Your task to perform on an android device: add a contact Image 0: 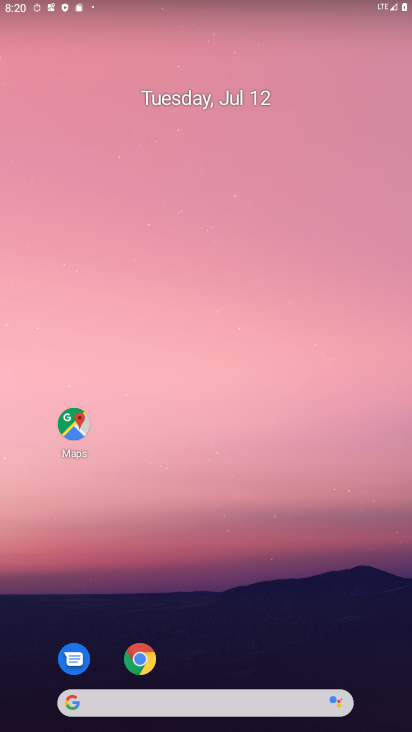
Step 0: drag from (351, 649) to (320, 81)
Your task to perform on an android device: add a contact Image 1: 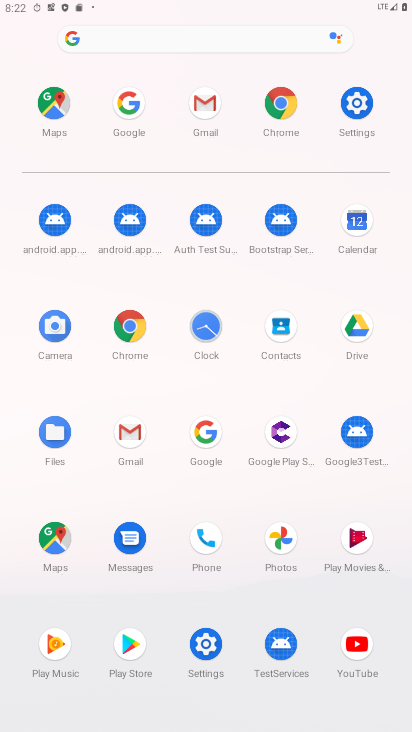
Step 1: click (287, 324)
Your task to perform on an android device: add a contact Image 2: 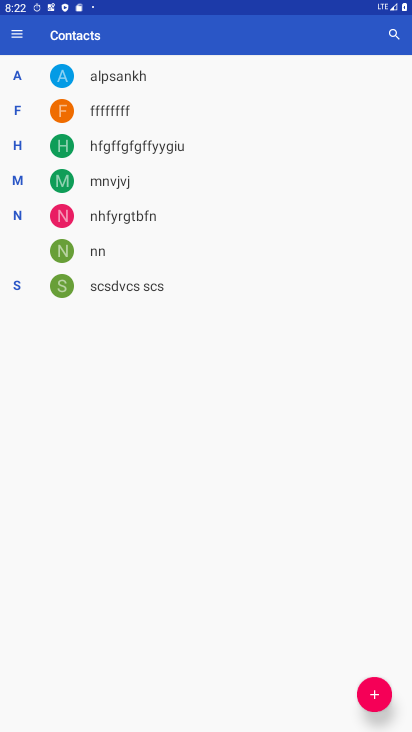
Step 2: click (356, 702)
Your task to perform on an android device: add a contact Image 3: 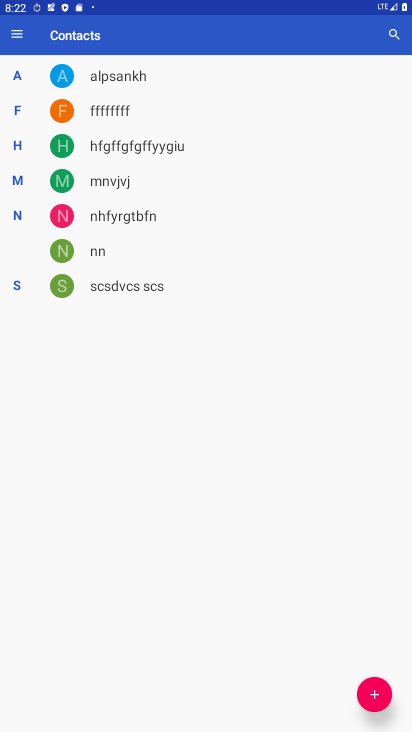
Step 3: click (369, 694)
Your task to perform on an android device: add a contact Image 4: 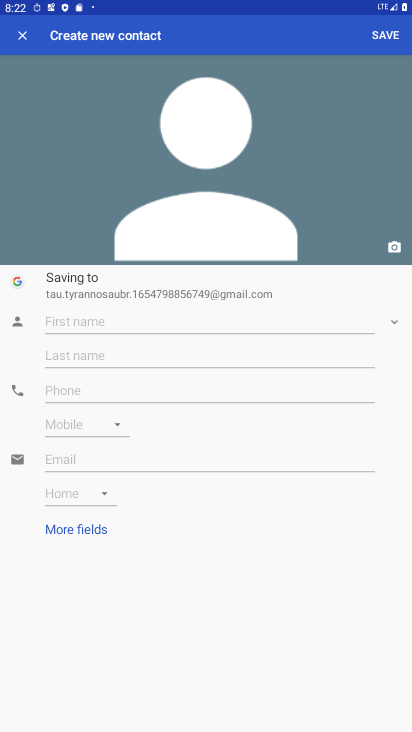
Step 4: click (87, 312)
Your task to perform on an android device: add a contact Image 5: 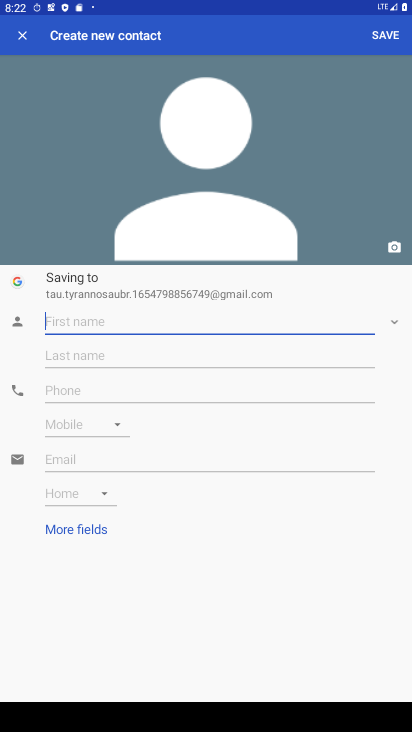
Step 5: type "suman"
Your task to perform on an android device: add a contact Image 6: 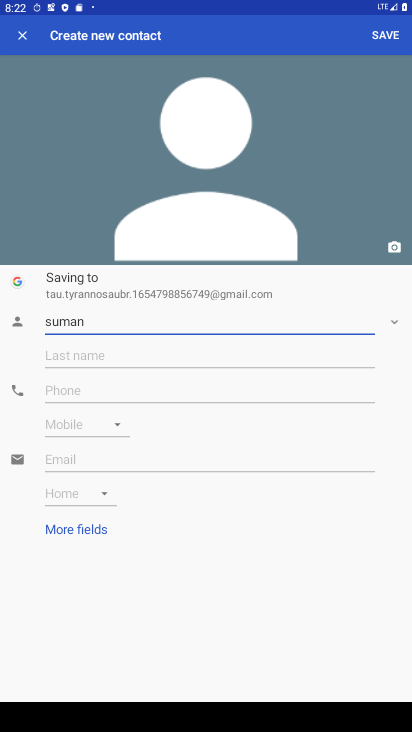
Step 6: click (369, 34)
Your task to perform on an android device: add a contact Image 7: 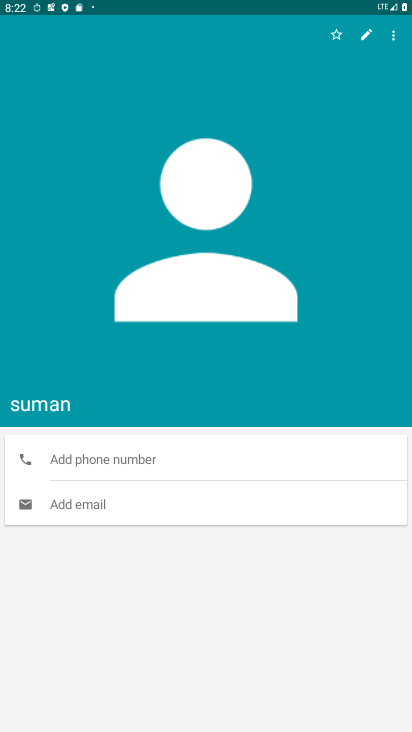
Step 7: task complete